Your task to perform on an android device: change the clock style Image 0: 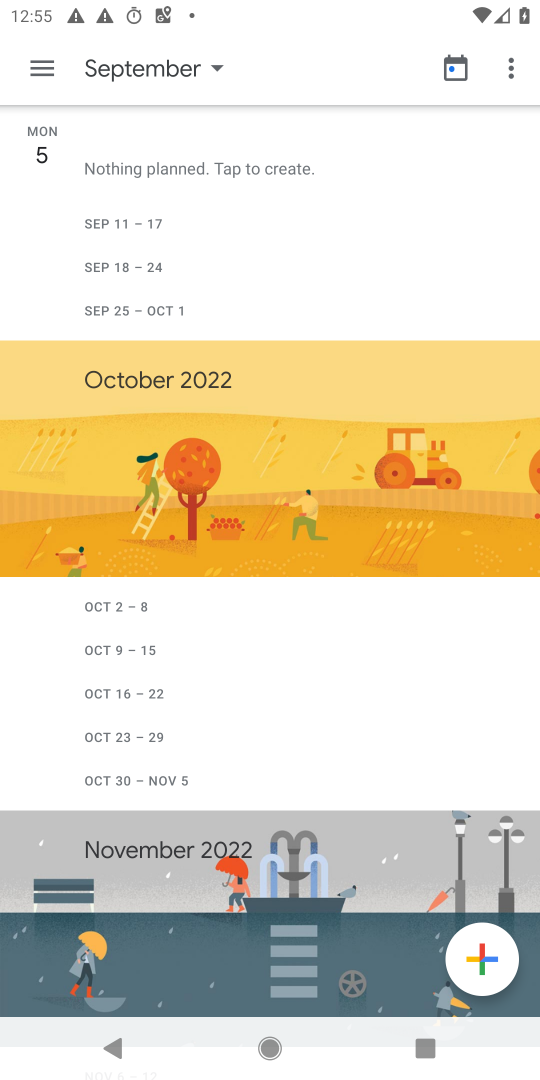
Step 0: press home button
Your task to perform on an android device: change the clock style Image 1: 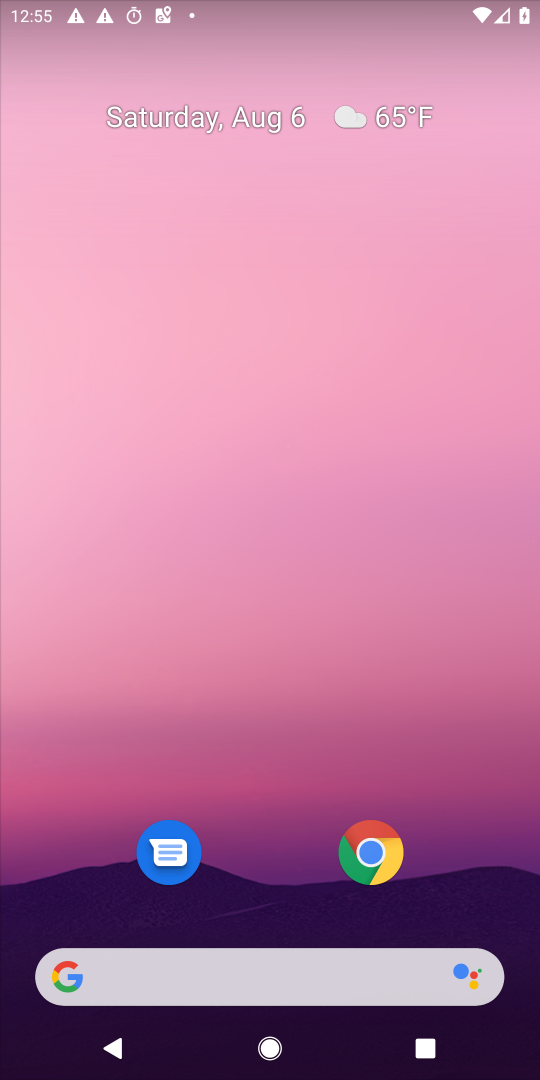
Step 1: drag from (379, 1008) to (298, 273)
Your task to perform on an android device: change the clock style Image 2: 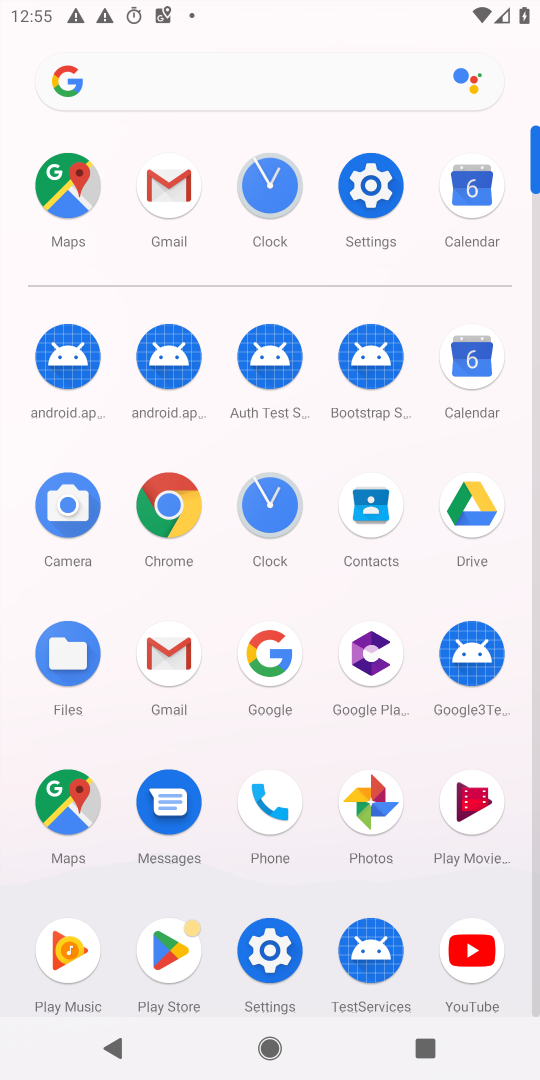
Step 2: click (270, 521)
Your task to perform on an android device: change the clock style Image 3: 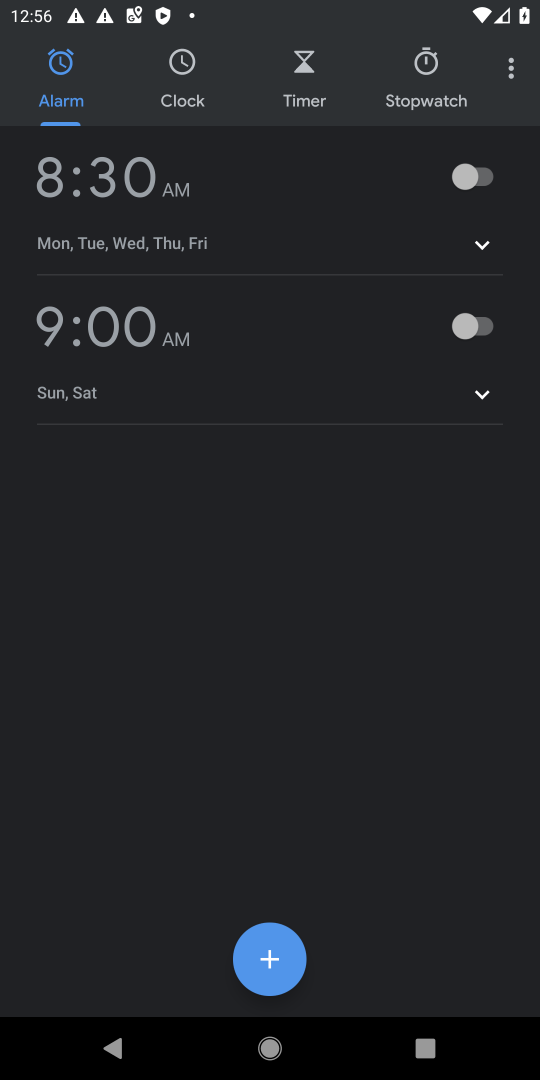
Step 3: click (510, 82)
Your task to perform on an android device: change the clock style Image 4: 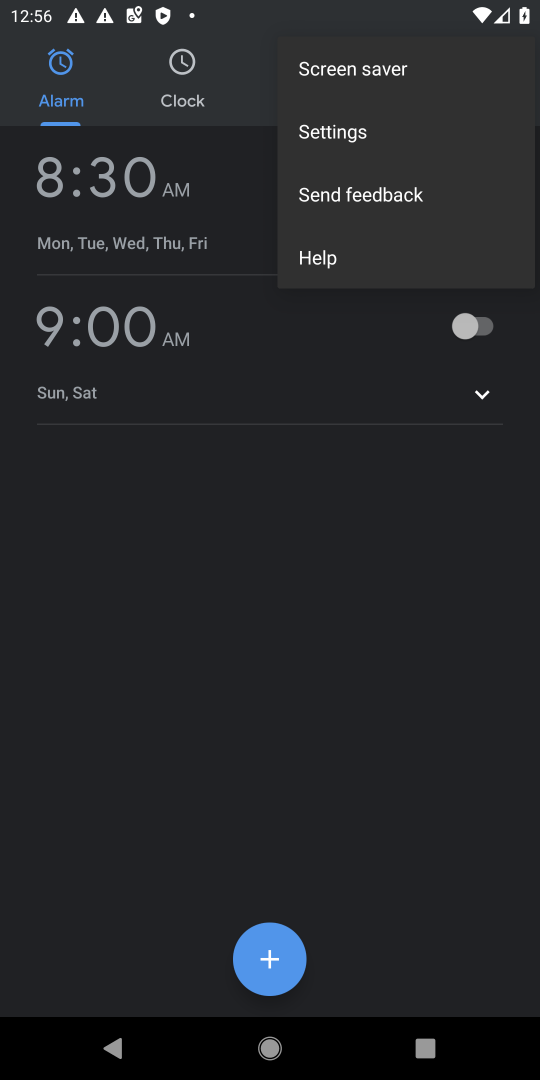
Step 4: click (362, 143)
Your task to perform on an android device: change the clock style Image 5: 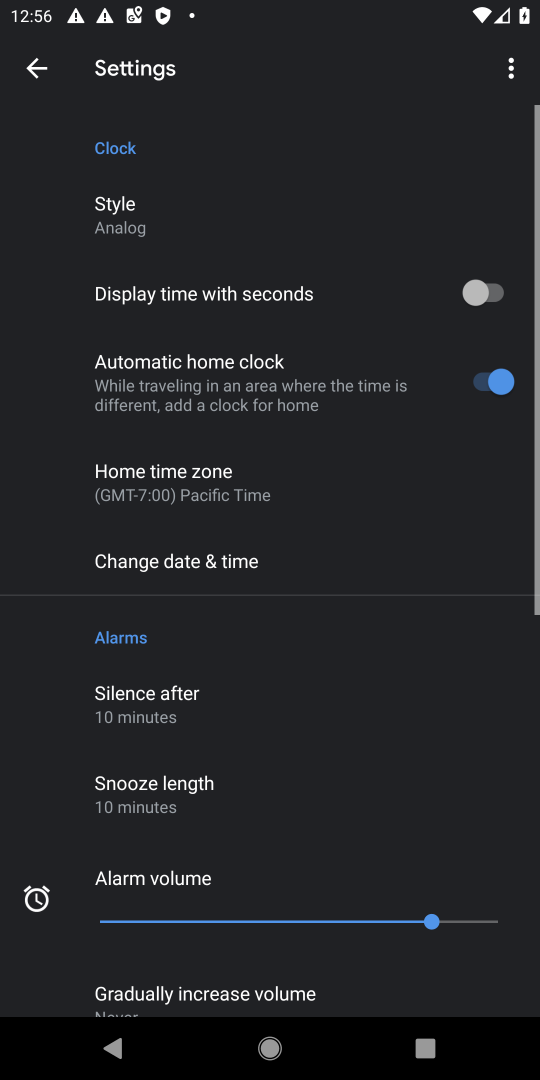
Step 5: click (192, 188)
Your task to perform on an android device: change the clock style Image 6: 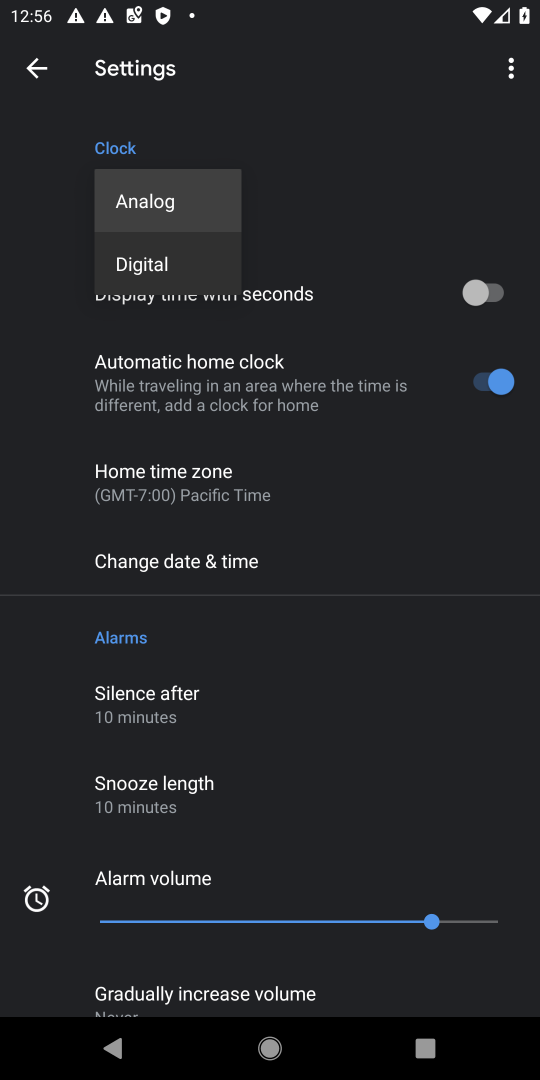
Step 6: click (159, 258)
Your task to perform on an android device: change the clock style Image 7: 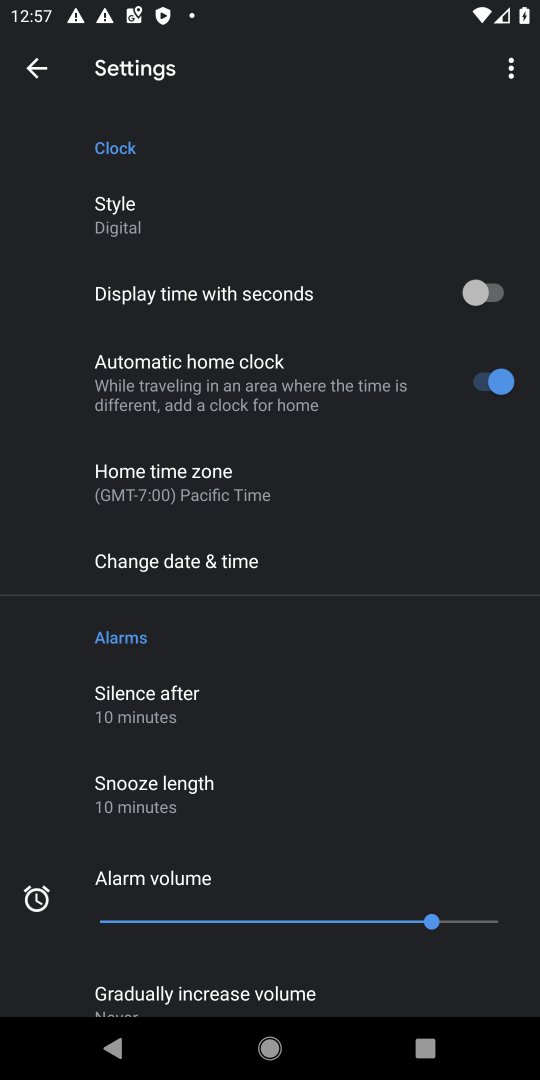
Step 7: task complete